Your task to perform on an android device: toggle translation in the chrome app Image 0: 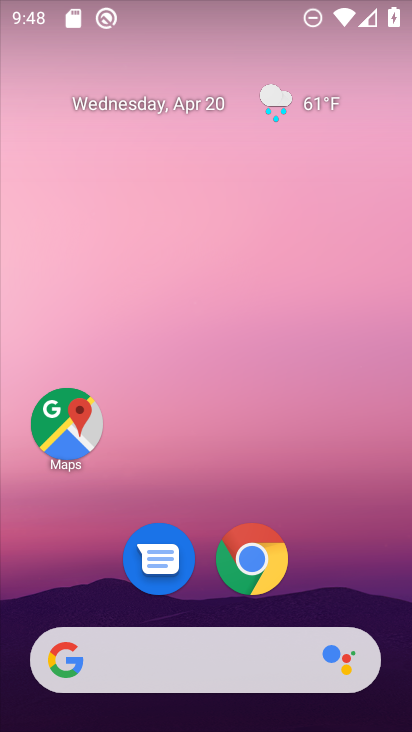
Step 0: click (251, 560)
Your task to perform on an android device: toggle translation in the chrome app Image 1: 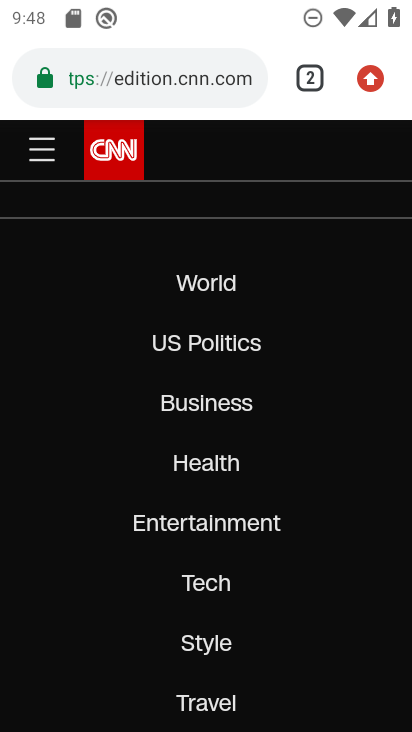
Step 1: click (369, 81)
Your task to perform on an android device: toggle translation in the chrome app Image 2: 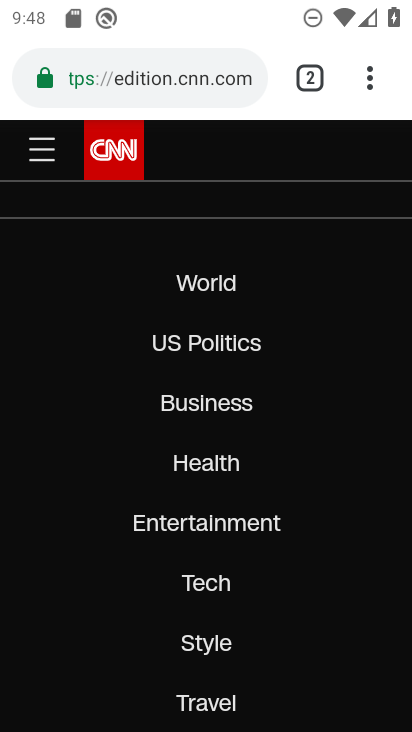
Step 2: click (371, 79)
Your task to perform on an android device: toggle translation in the chrome app Image 3: 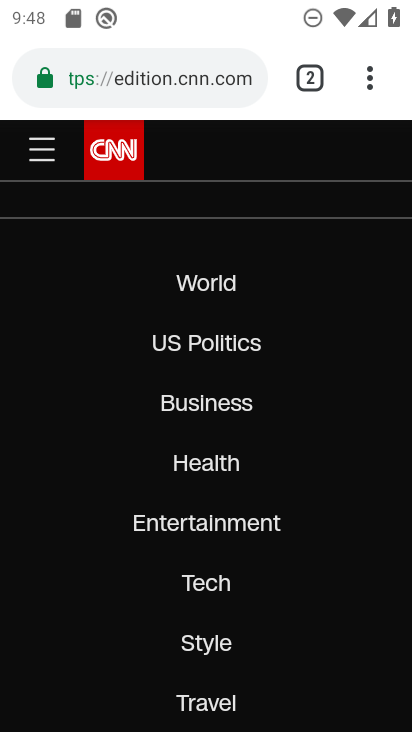
Step 3: click (371, 79)
Your task to perform on an android device: toggle translation in the chrome app Image 4: 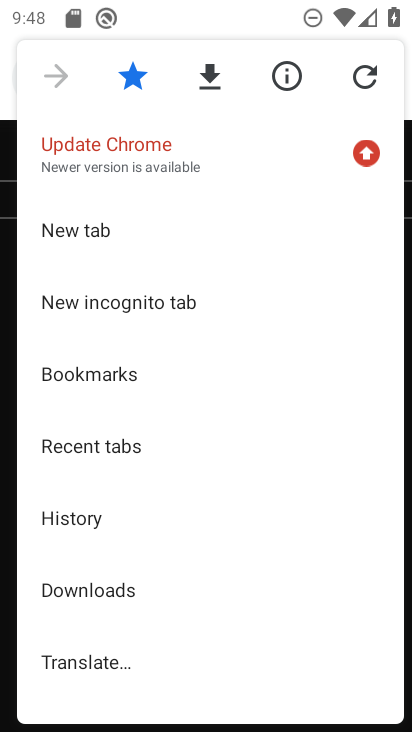
Step 4: drag from (169, 607) to (179, 320)
Your task to perform on an android device: toggle translation in the chrome app Image 5: 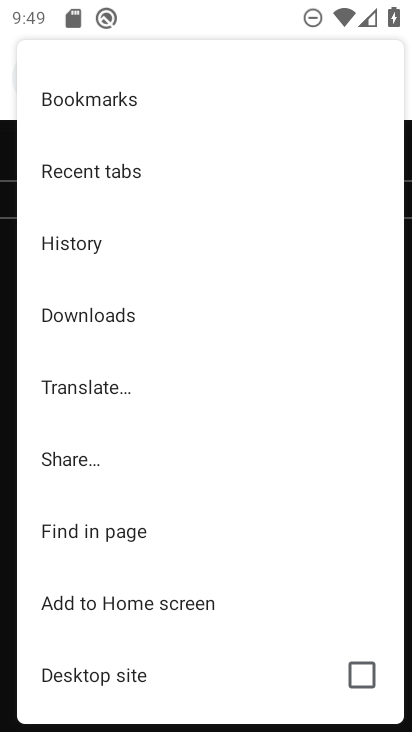
Step 5: drag from (212, 533) to (187, 202)
Your task to perform on an android device: toggle translation in the chrome app Image 6: 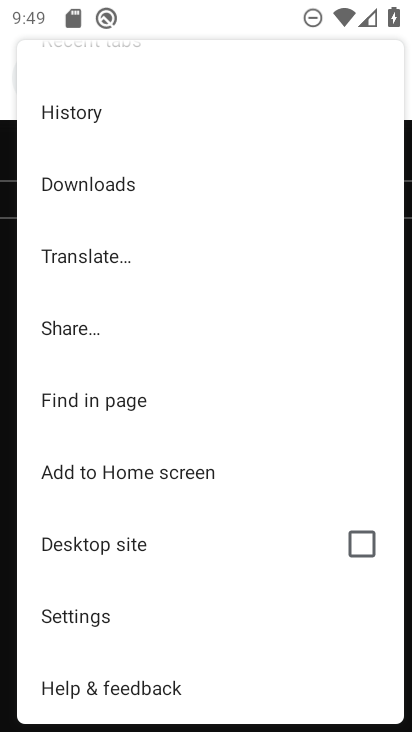
Step 6: click (85, 621)
Your task to perform on an android device: toggle translation in the chrome app Image 7: 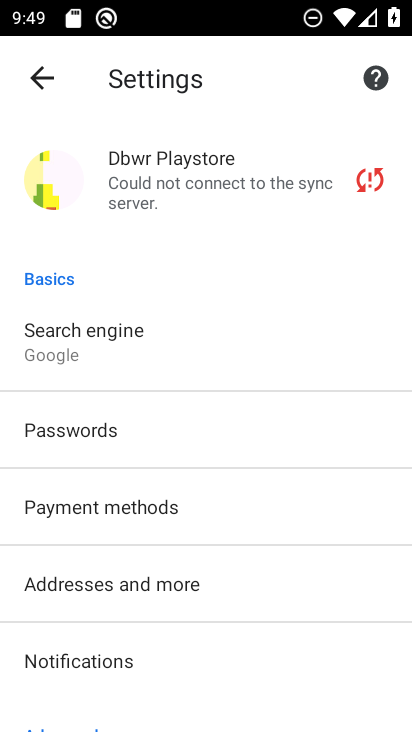
Step 7: drag from (284, 589) to (274, 289)
Your task to perform on an android device: toggle translation in the chrome app Image 8: 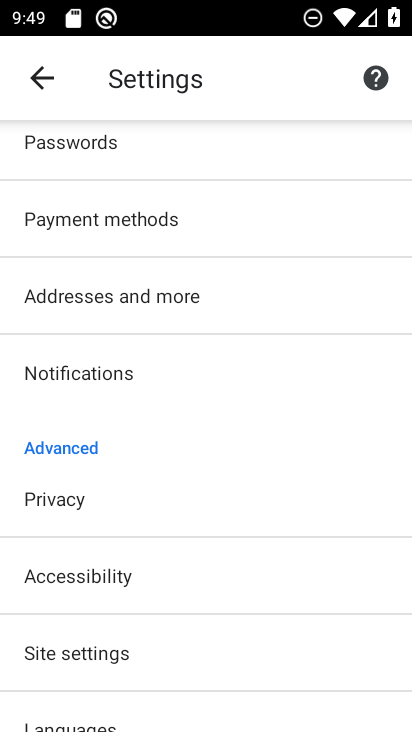
Step 8: drag from (172, 629) to (188, 344)
Your task to perform on an android device: toggle translation in the chrome app Image 9: 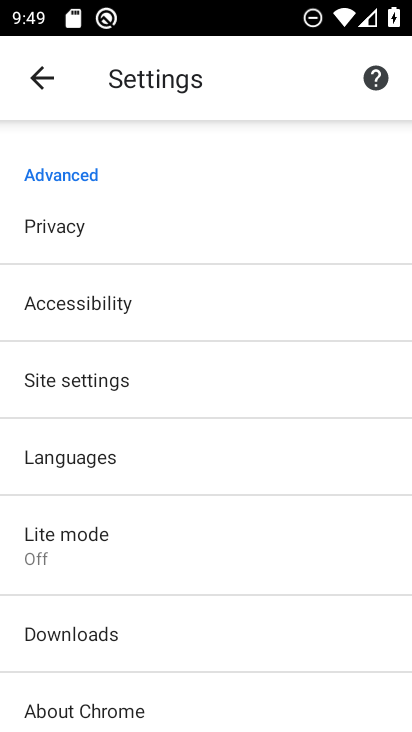
Step 9: click (101, 467)
Your task to perform on an android device: toggle translation in the chrome app Image 10: 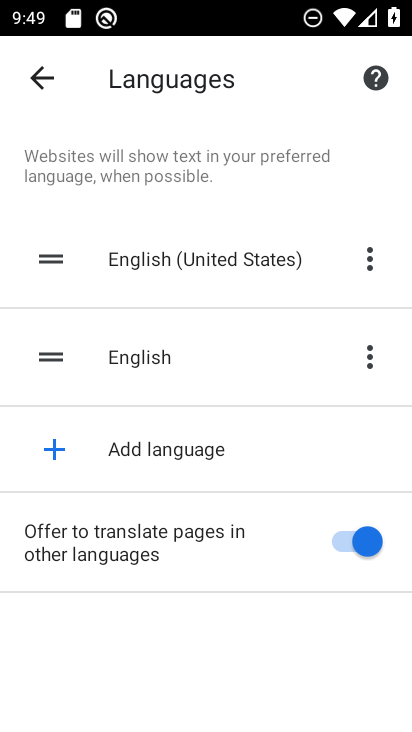
Step 10: click (343, 542)
Your task to perform on an android device: toggle translation in the chrome app Image 11: 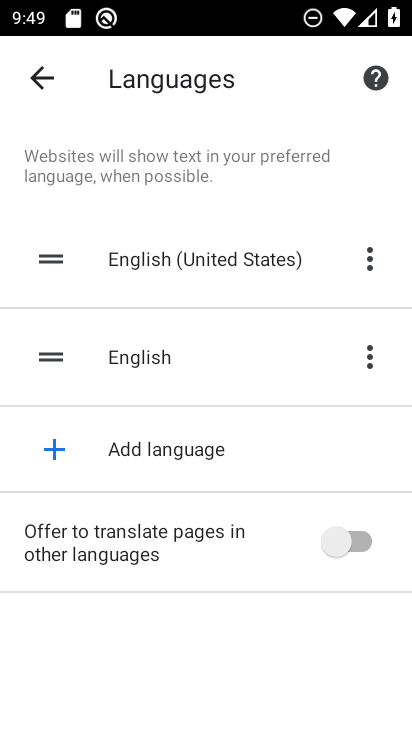
Step 11: task complete